Your task to perform on an android device: allow cookies in the chrome app Image 0: 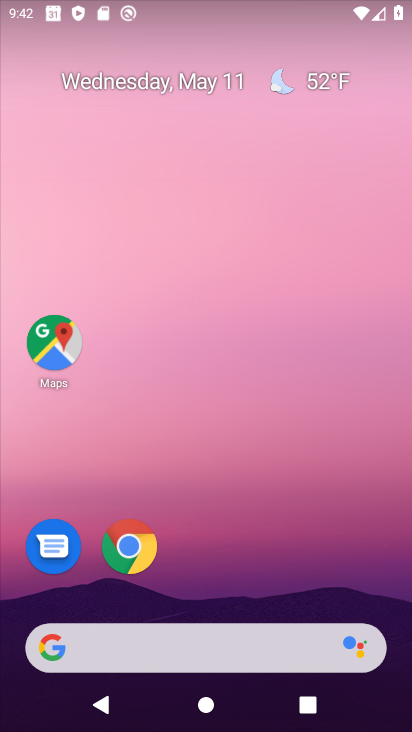
Step 0: click (129, 556)
Your task to perform on an android device: allow cookies in the chrome app Image 1: 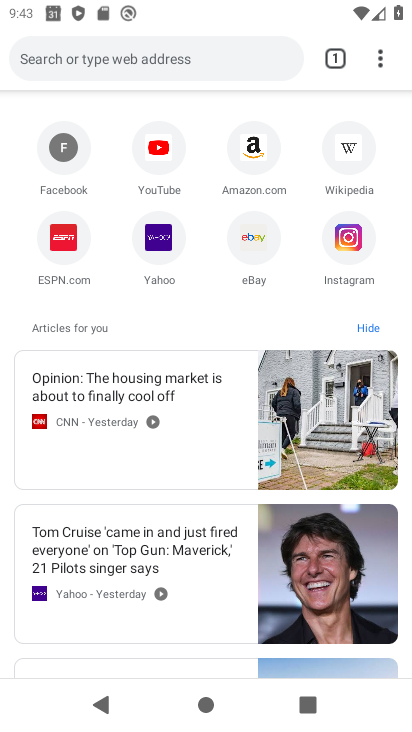
Step 1: click (372, 53)
Your task to perform on an android device: allow cookies in the chrome app Image 2: 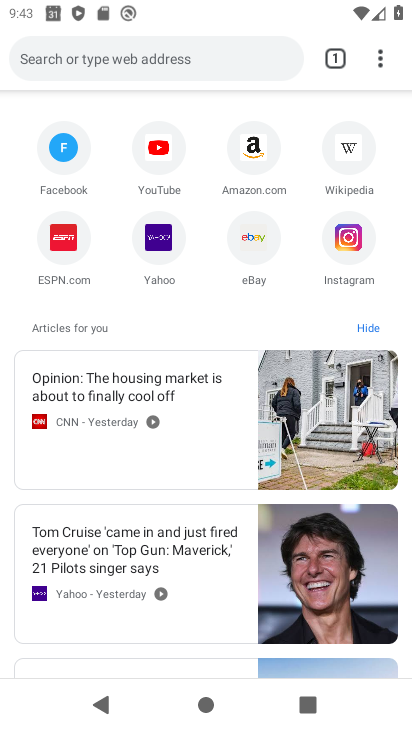
Step 2: drag from (382, 69) to (215, 555)
Your task to perform on an android device: allow cookies in the chrome app Image 3: 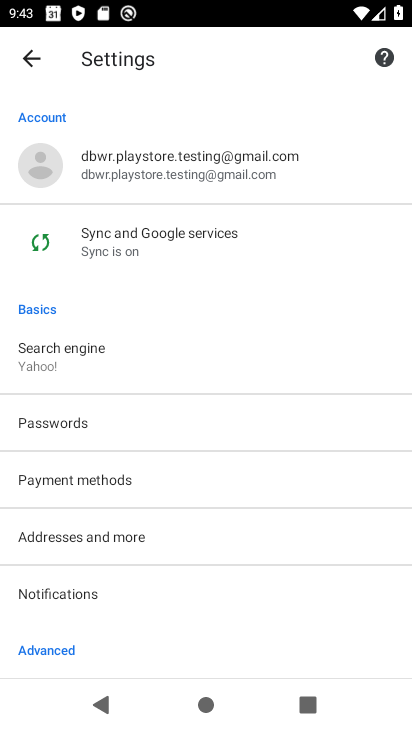
Step 3: drag from (159, 566) to (103, 137)
Your task to perform on an android device: allow cookies in the chrome app Image 4: 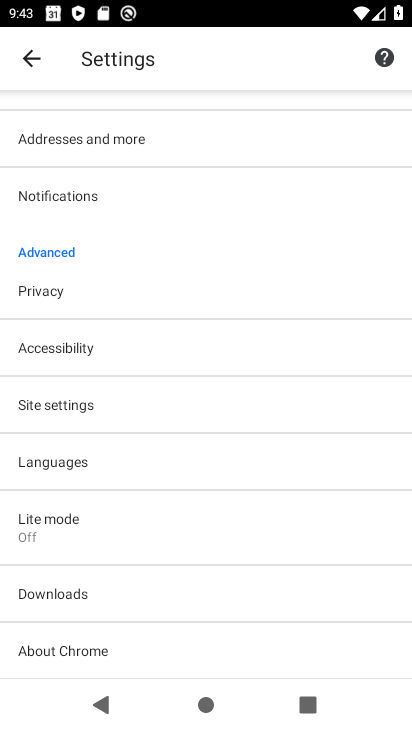
Step 4: click (70, 406)
Your task to perform on an android device: allow cookies in the chrome app Image 5: 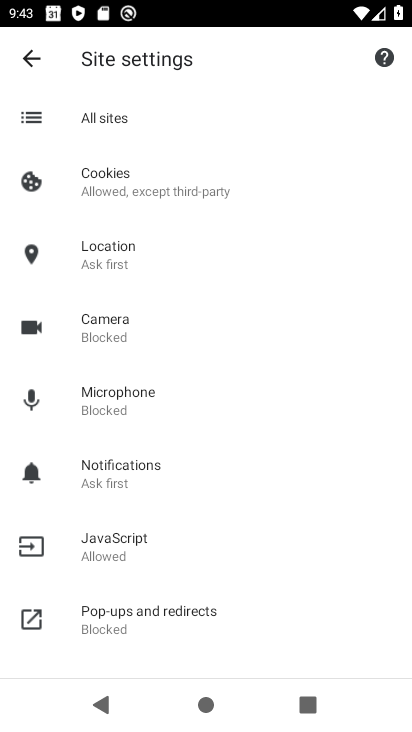
Step 5: click (103, 172)
Your task to perform on an android device: allow cookies in the chrome app Image 6: 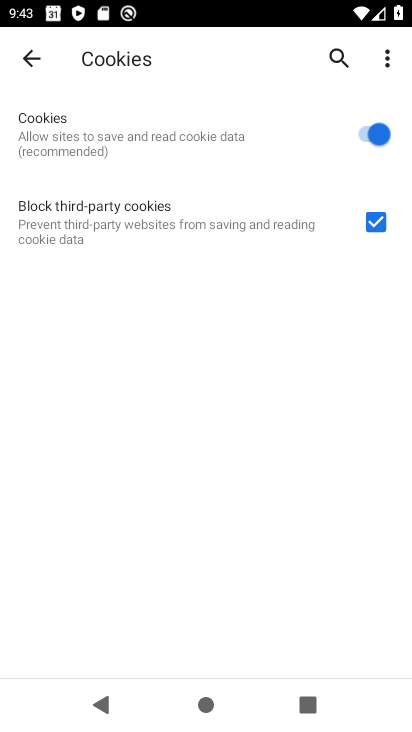
Step 6: task complete